Your task to perform on an android device: make emails show in primary in the gmail app Image 0: 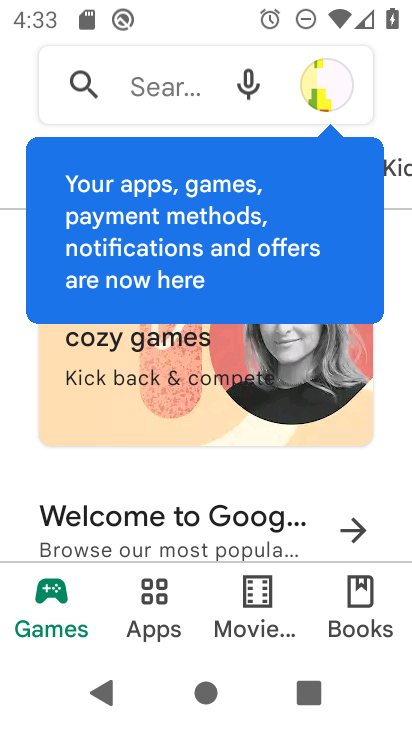
Step 0: press home button
Your task to perform on an android device: make emails show in primary in the gmail app Image 1: 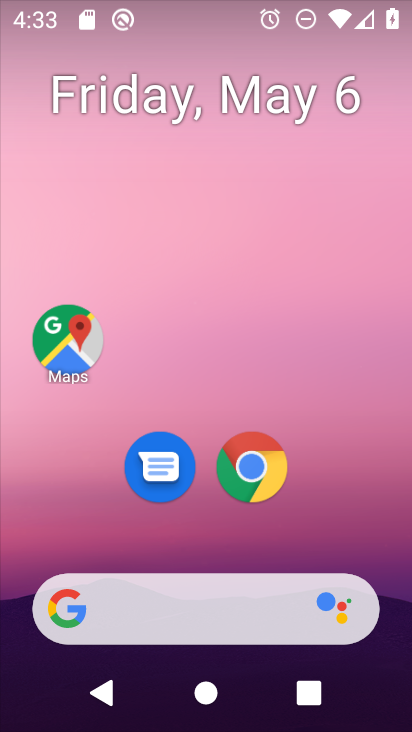
Step 1: drag from (340, 556) to (321, 97)
Your task to perform on an android device: make emails show in primary in the gmail app Image 2: 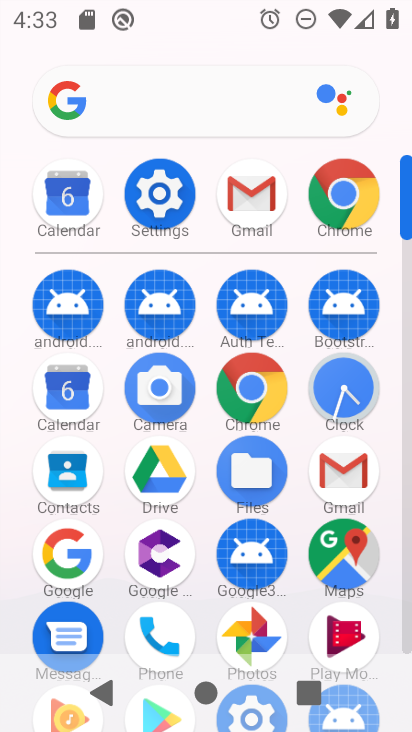
Step 2: click (228, 209)
Your task to perform on an android device: make emails show in primary in the gmail app Image 3: 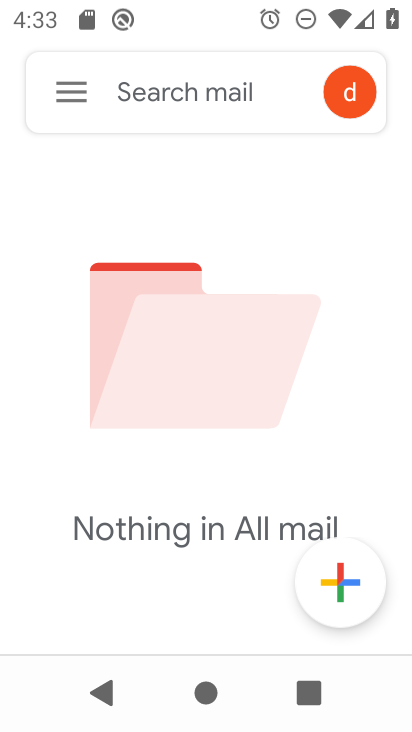
Step 3: click (81, 86)
Your task to perform on an android device: make emails show in primary in the gmail app Image 4: 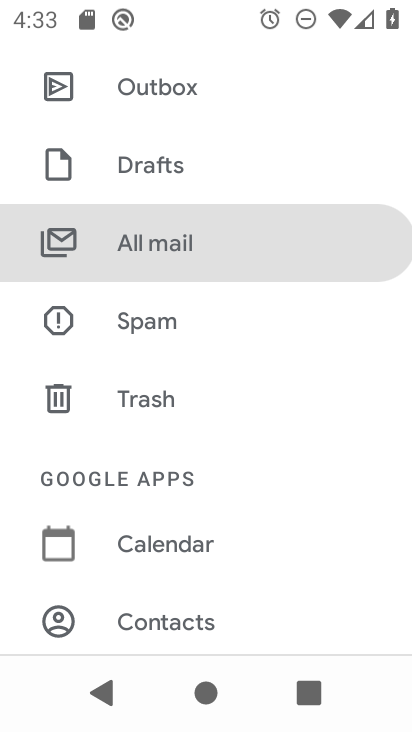
Step 4: drag from (179, 567) to (235, 149)
Your task to perform on an android device: make emails show in primary in the gmail app Image 5: 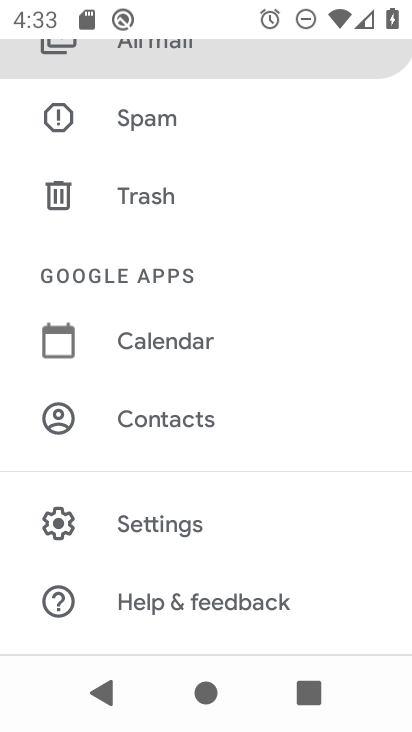
Step 5: click (152, 521)
Your task to perform on an android device: make emails show in primary in the gmail app Image 6: 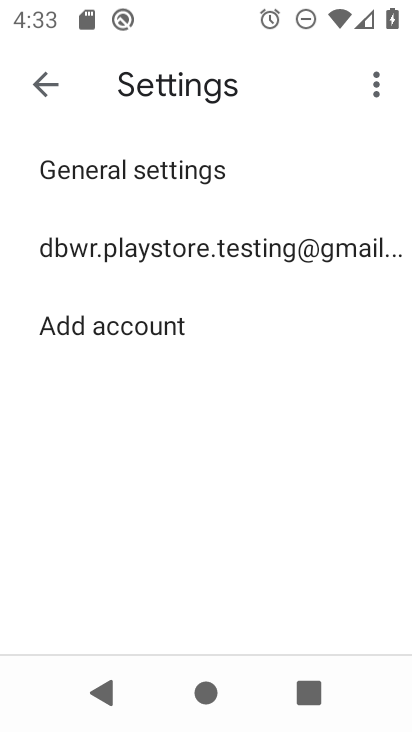
Step 6: click (234, 251)
Your task to perform on an android device: make emails show in primary in the gmail app Image 7: 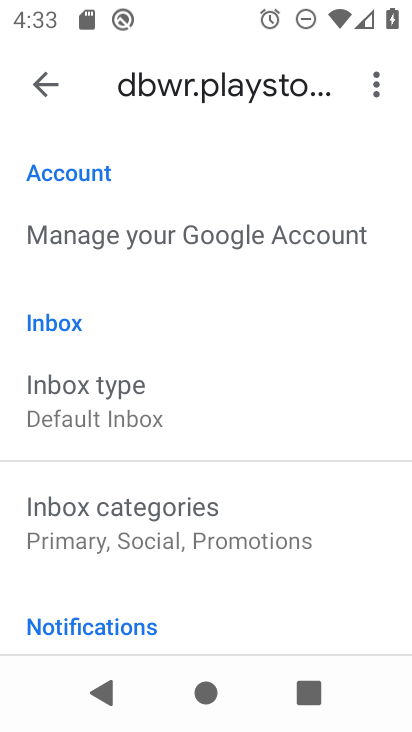
Step 7: click (164, 534)
Your task to perform on an android device: make emails show in primary in the gmail app Image 8: 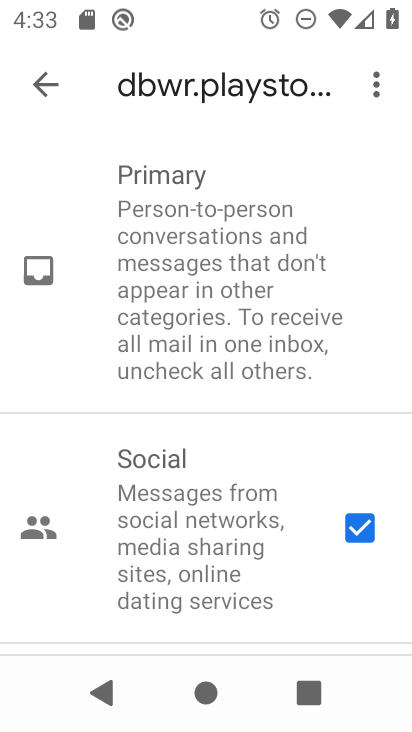
Step 8: click (375, 531)
Your task to perform on an android device: make emails show in primary in the gmail app Image 9: 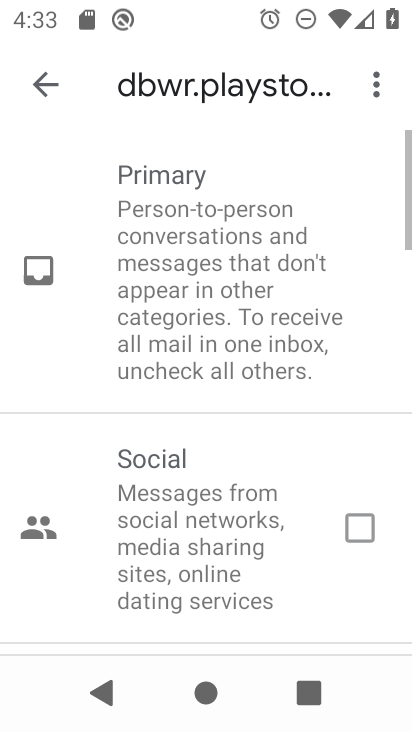
Step 9: drag from (322, 610) to (285, 232)
Your task to perform on an android device: make emails show in primary in the gmail app Image 10: 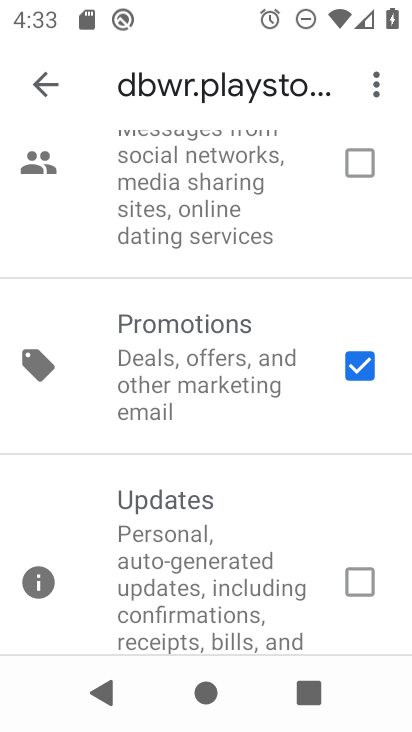
Step 10: click (365, 359)
Your task to perform on an android device: make emails show in primary in the gmail app Image 11: 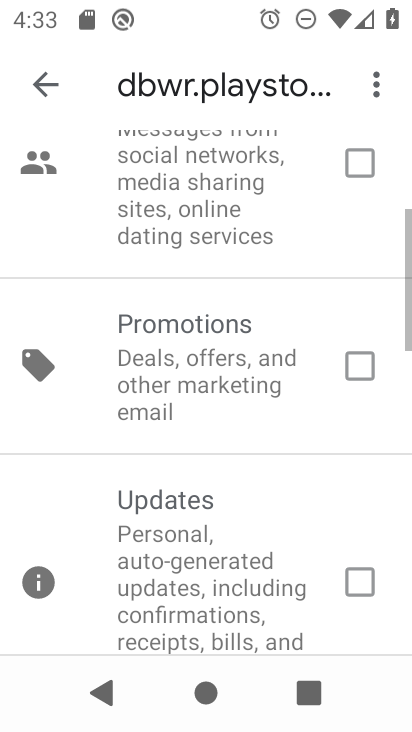
Step 11: task complete